Your task to perform on an android device: Open the calendar app, open the side menu, and click the "Day" option Image 0: 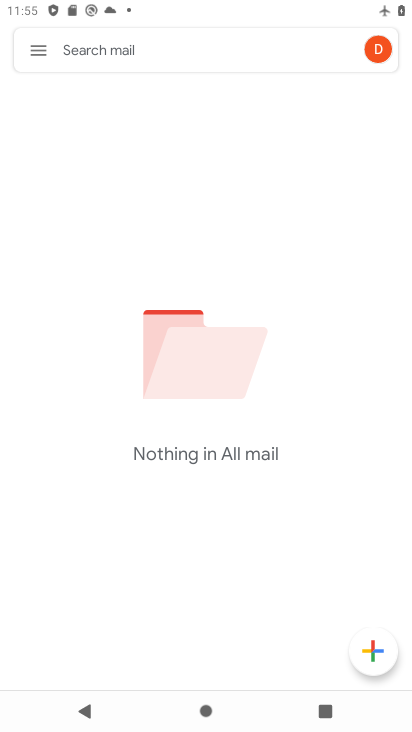
Step 0: press home button
Your task to perform on an android device: Open the calendar app, open the side menu, and click the "Day" option Image 1: 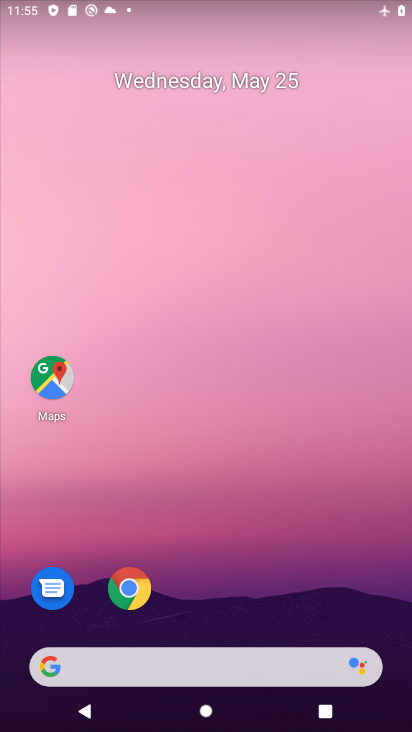
Step 1: drag from (197, 625) to (176, 259)
Your task to perform on an android device: Open the calendar app, open the side menu, and click the "Day" option Image 2: 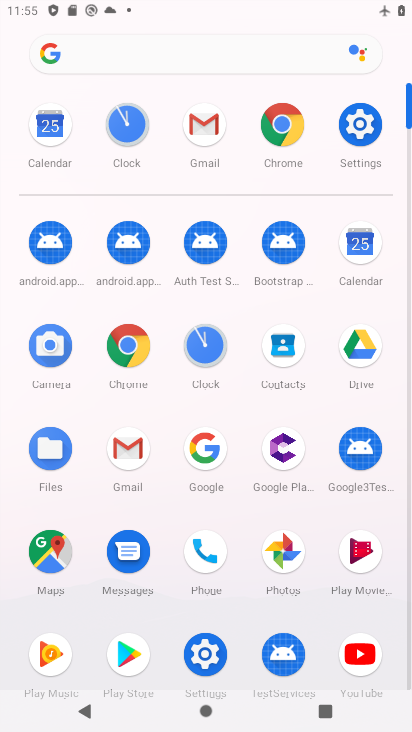
Step 2: click (352, 250)
Your task to perform on an android device: Open the calendar app, open the side menu, and click the "Day" option Image 3: 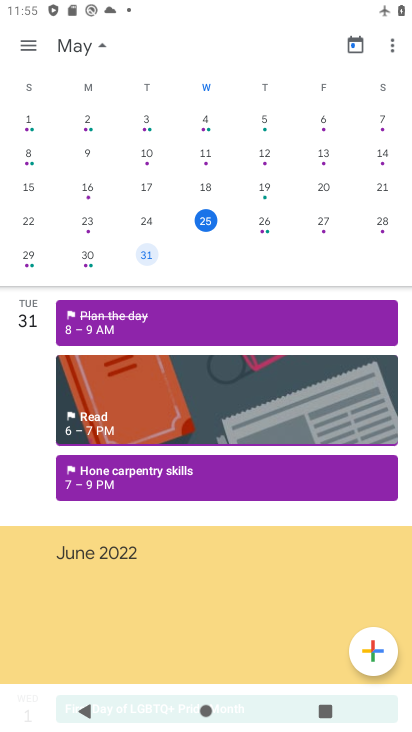
Step 3: click (27, 43)
Your task to perform on an android device: Open the calendar app, open the side menu, and click the "Day" option Image 4: 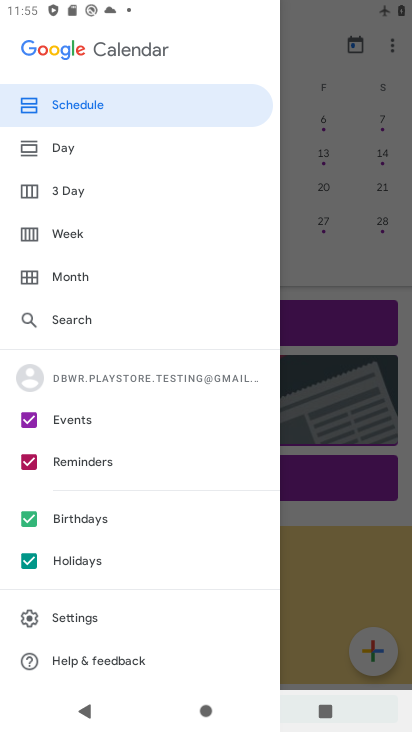
Step 4: click (76, 161)
Your task to perform on an android device: Open the calendar app, open the side menu, and click the "Day" option Image 5: 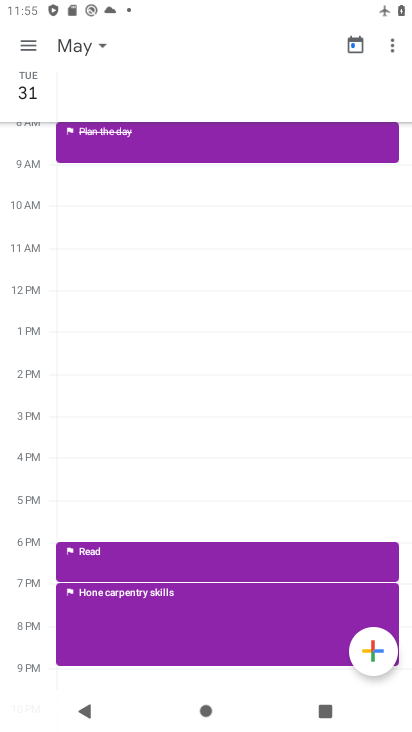
Step 5: task complete